Your task to perform on an android device: Open display settings Image 0: 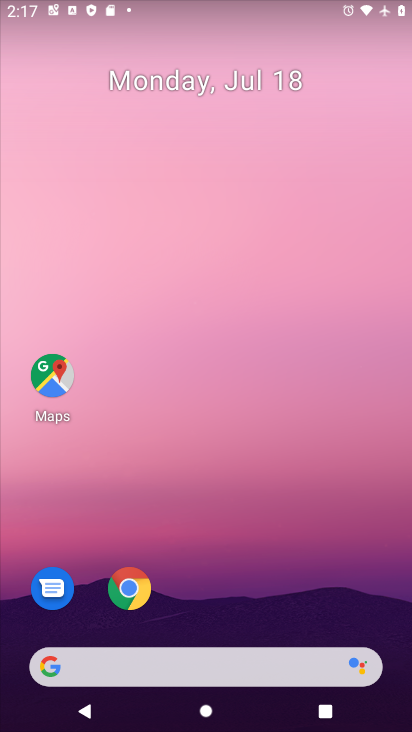
Step 0: drag from (168, 708) to (265, 17)
Your task to perform on an android device: Open display settings Image 1: 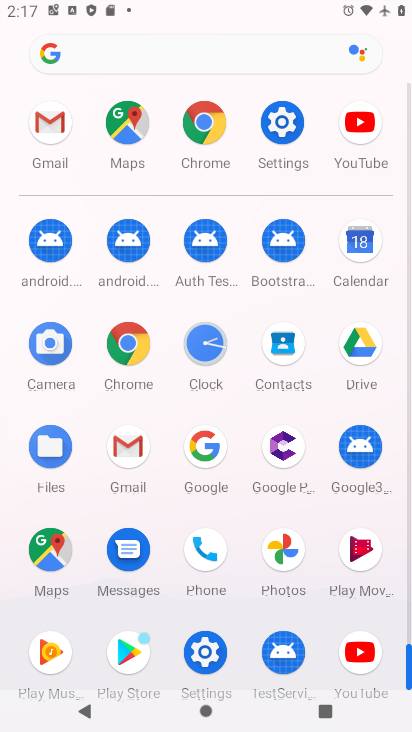
Step 1: click (276, 122)
Your task to perform on an android device: Open display settings Image 2: 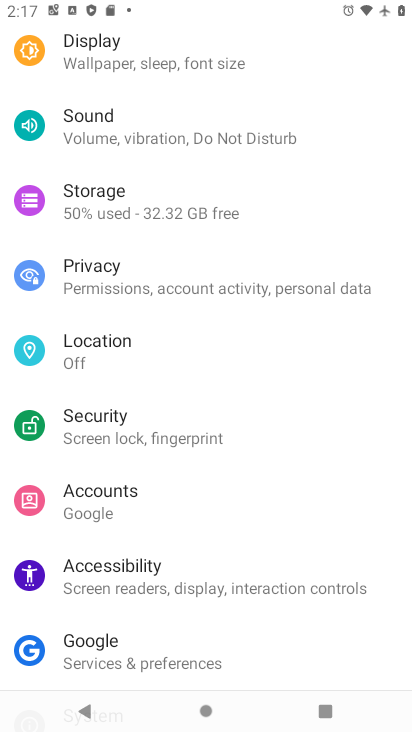
Step 2: click (128, 68)
Your task to perform on an android device: Open display settings Image 3: 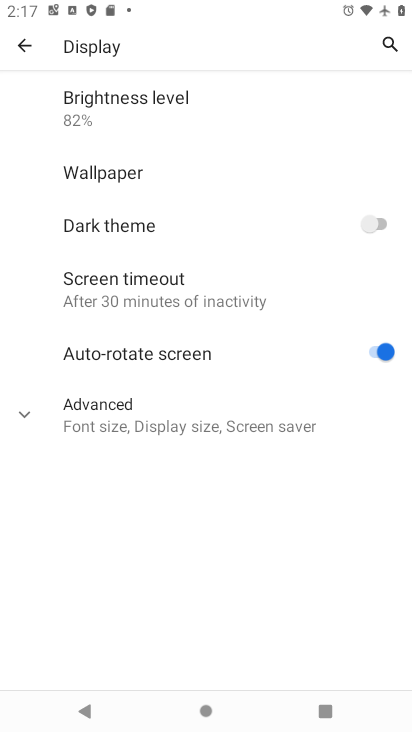
Step 3: task complete